Your task to perform on an android device: Search for pizza restaurants on Maps Image 0: 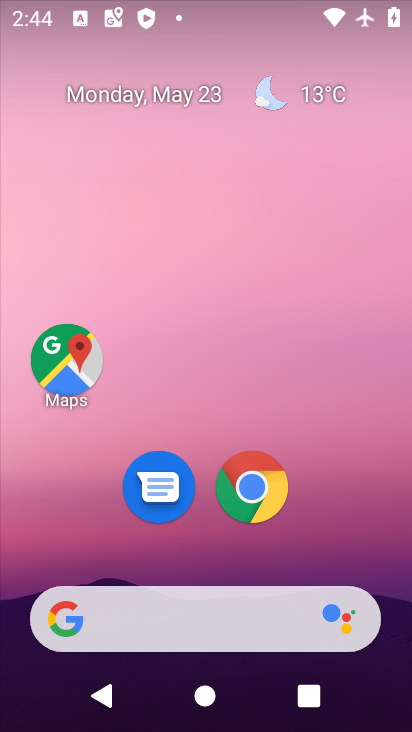
Step 0: click (67, 360)
Your task to perform on an android device: Search for pizza restaurants on Maps Image 1: 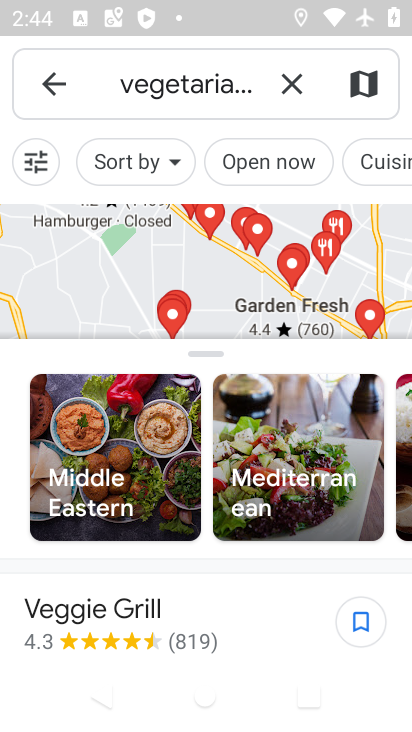
Step 1: click (289, 87)
Your task to perform on an android device: Search for pizza restaurants on Maps Image 2: 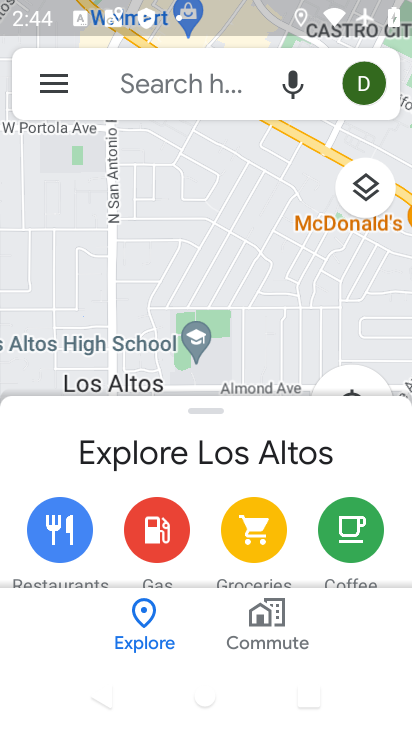
Step 2: click (162, 77)
Your task to perform on an android device: Search for pizza restaurants on Maps Image 3: 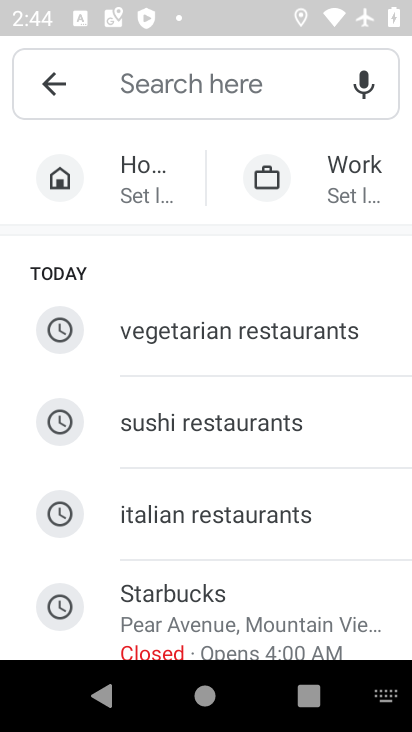
Step 3: type "pizza restaurants"
Your task to perform on an android device: Search for pizza restaurants on Maps Image 4: 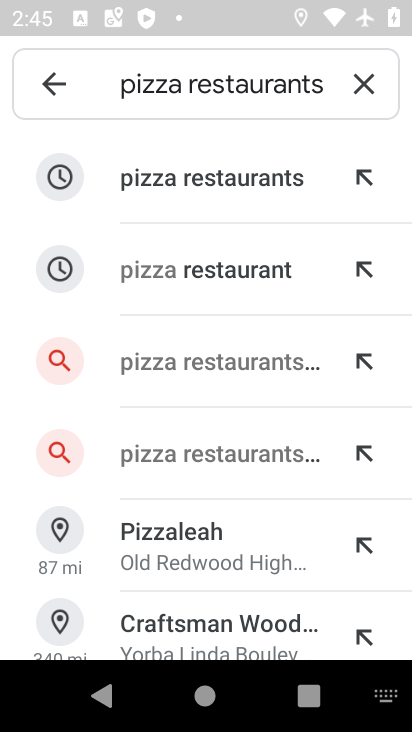
Step 4: click (197, 178)
Your task to perform on an android device: Search for pizza restaurants on Maps Image 5: 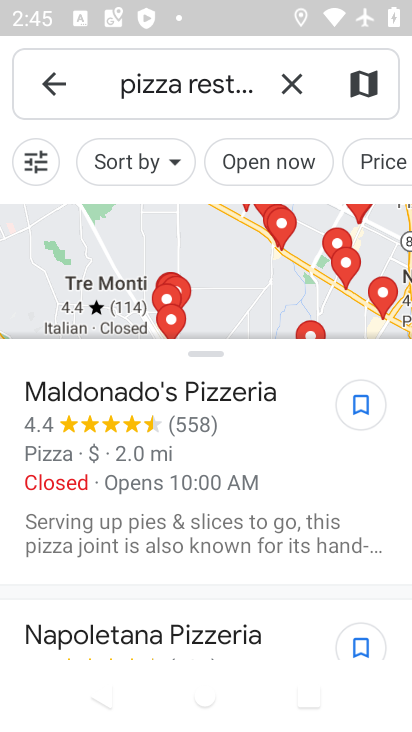
Step 5: task complete